Your task to perform on an android device: What's the weather going to be this weekend? Image 0: 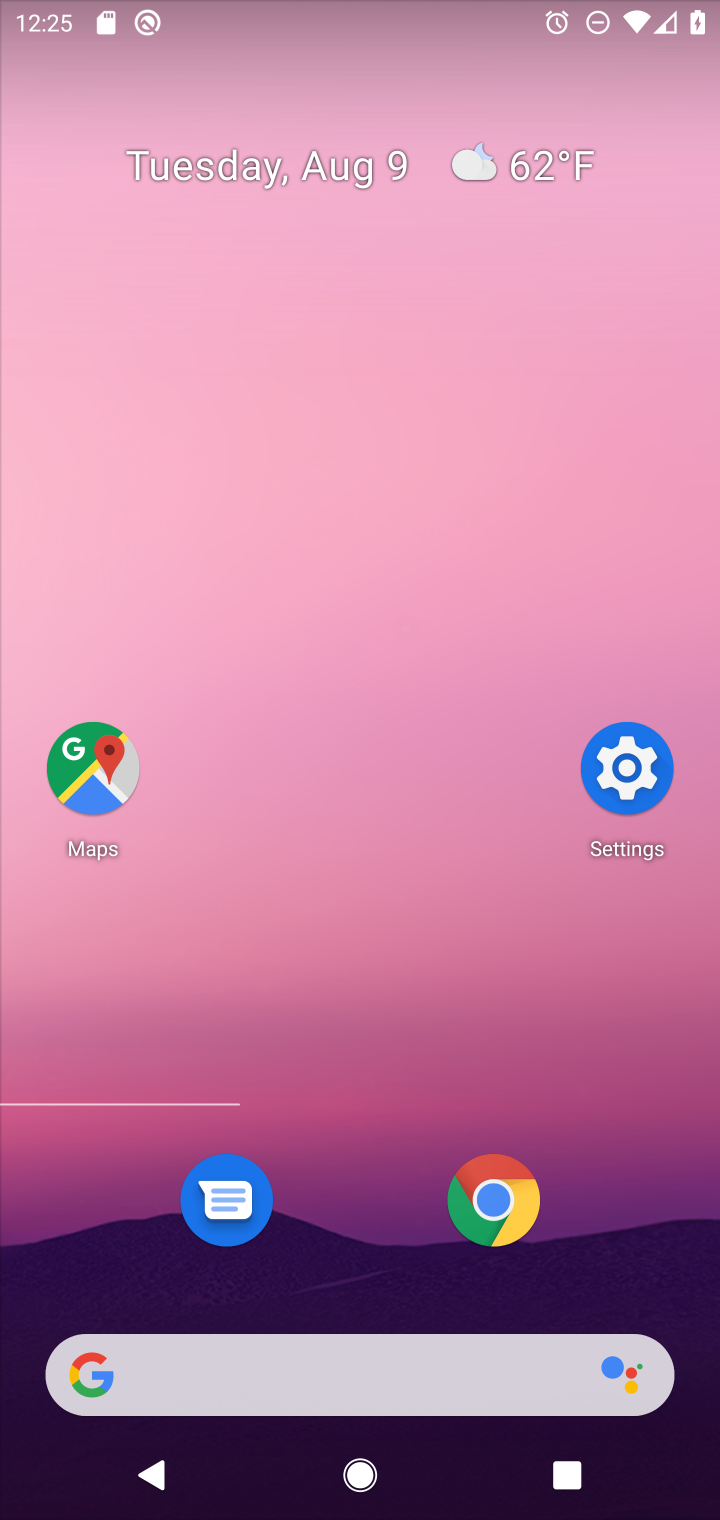
Step 0: click (297, 1367)
Your task to perform on an android device: What's the weather going to be this weekend? Image 1: 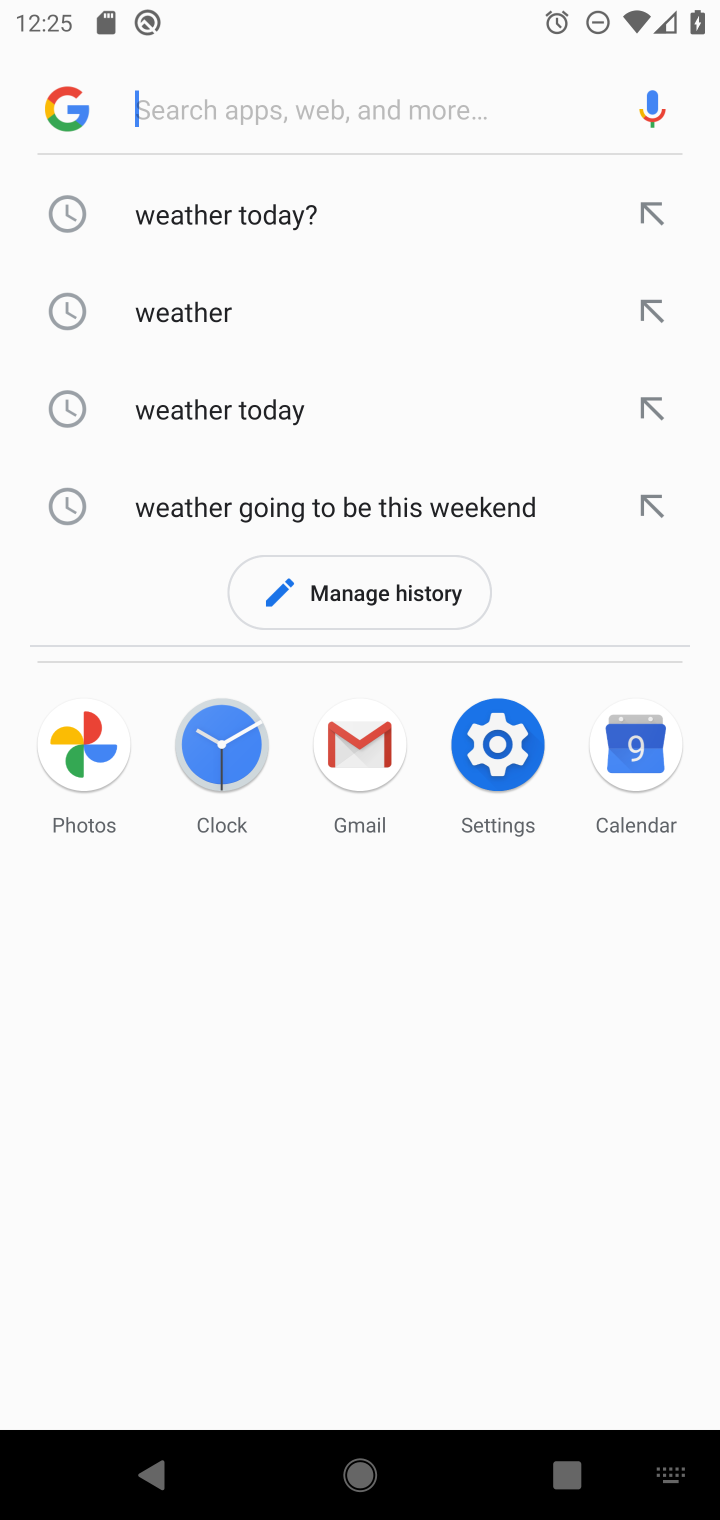
Step 1: click (638, 194)
Your task to perform on an android device: What's the weather going to be this weekend? Image 2: 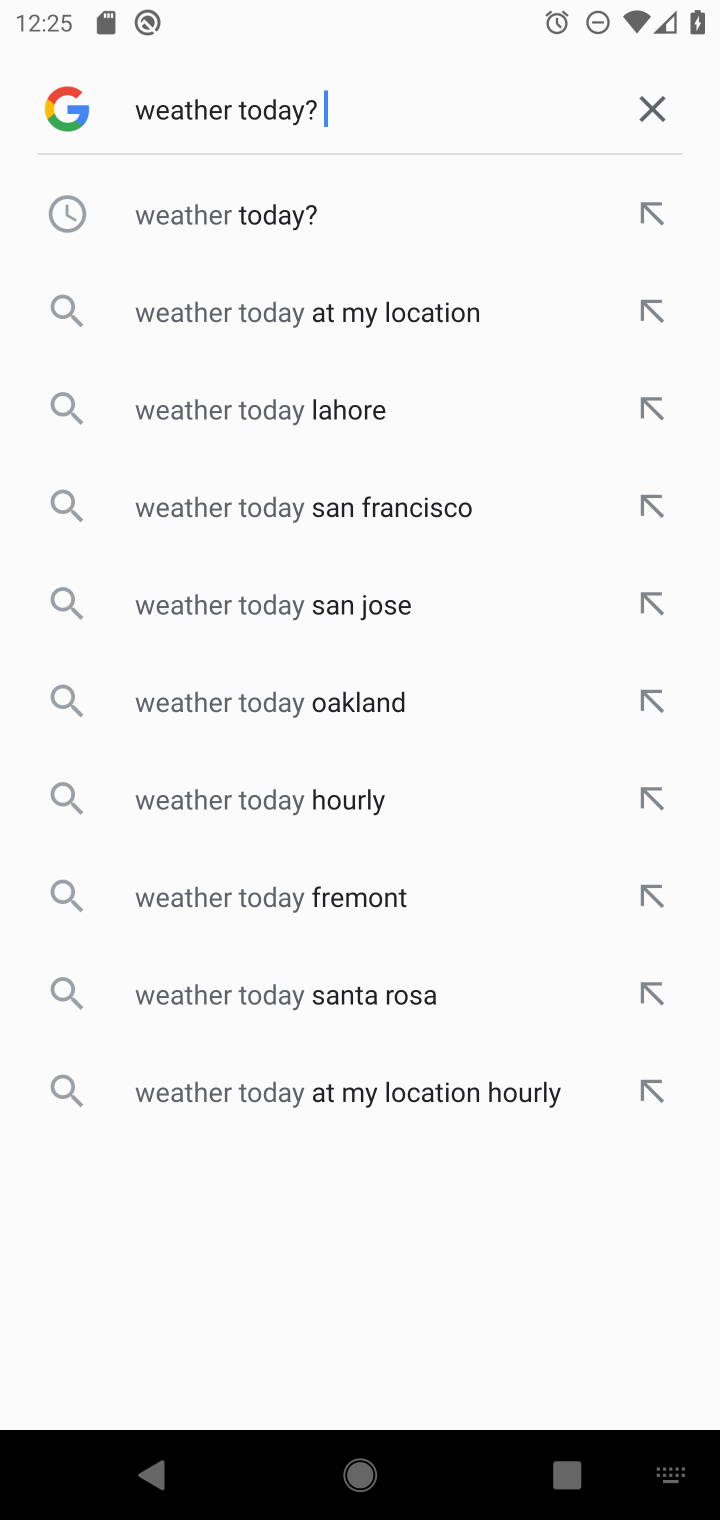
Step 2: click (644, 213)
Your task to perform on an android device: What's the weather going to be this weekend? Image 3: 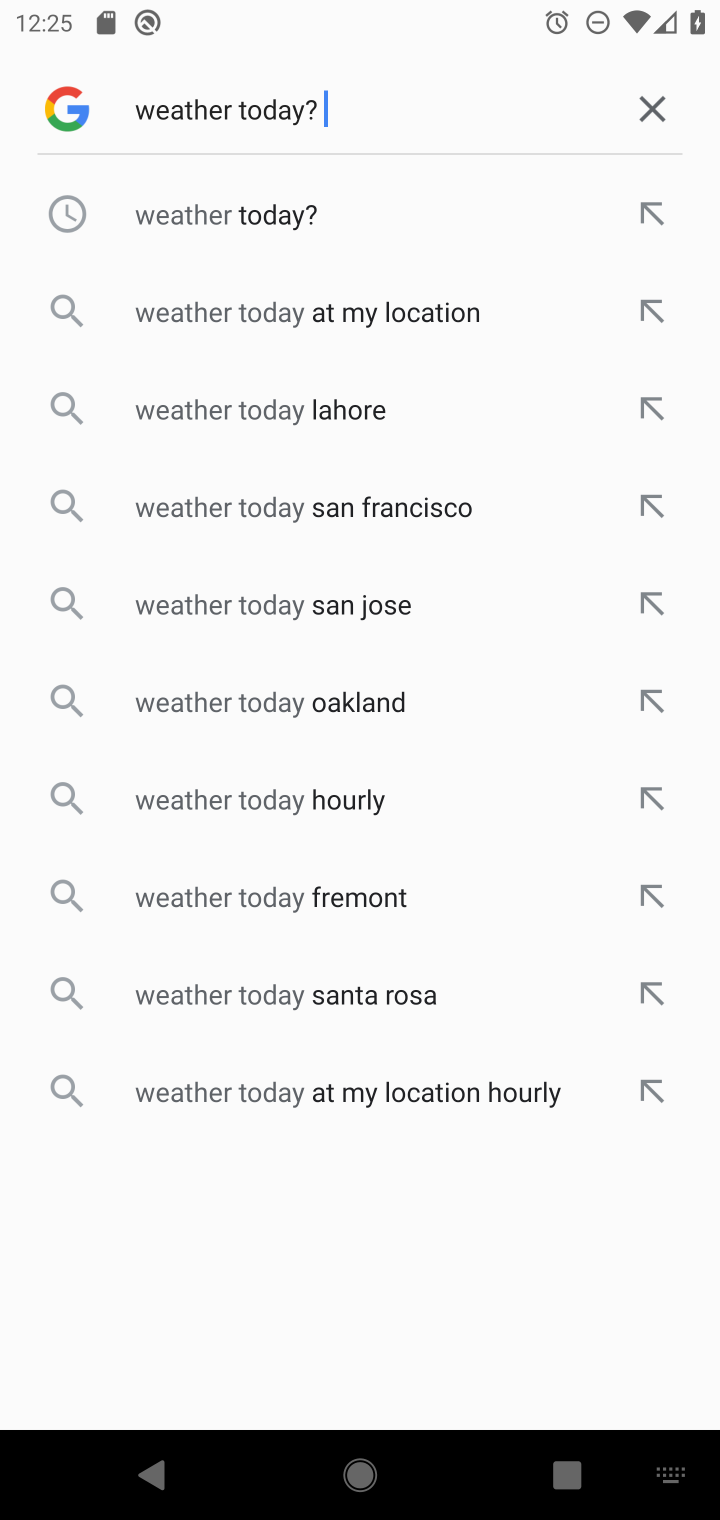
Step 3: click (649, 198)
Your task to perform on an android device: What's the weather going to be this weekend? Image 4: 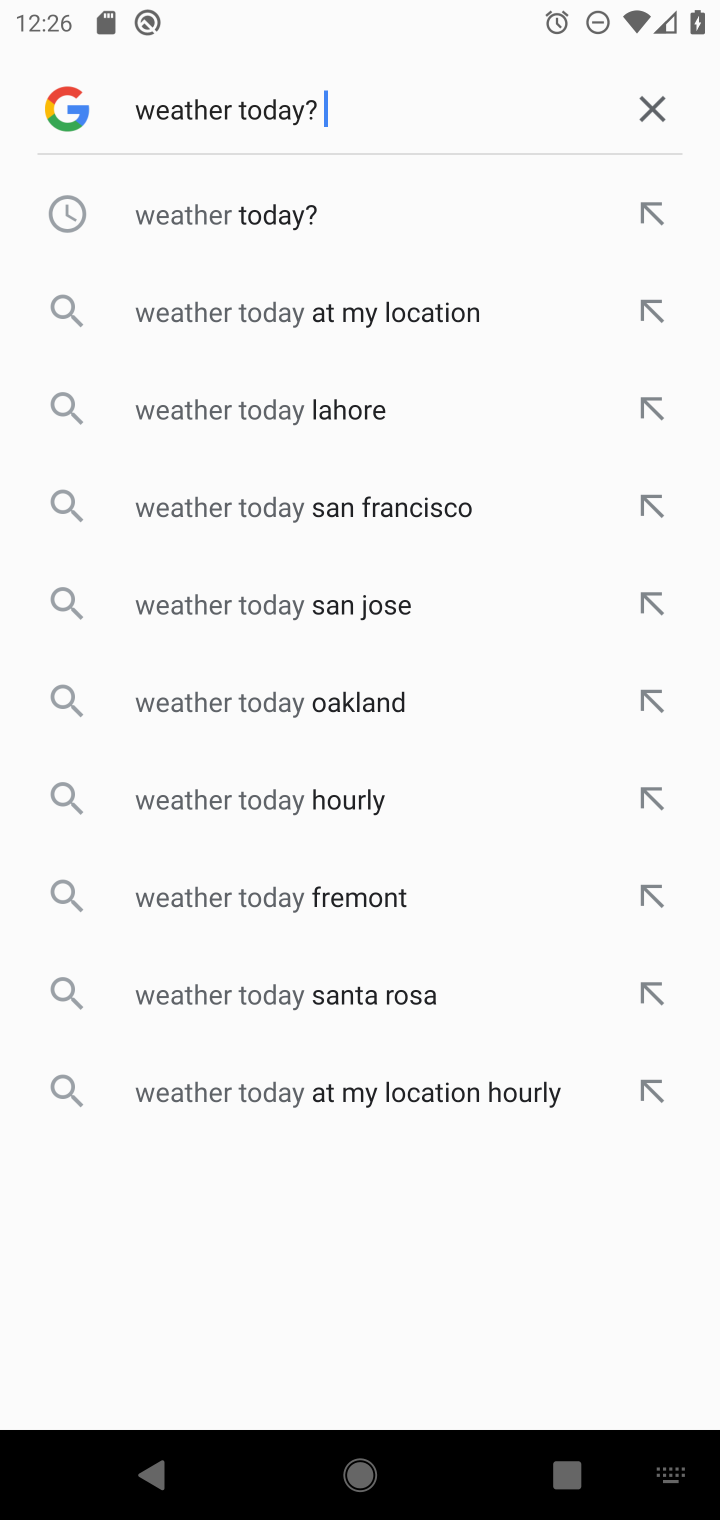
Step 4: click (269, 199)
Your task to perform on an android device: What's the weather going to be this weekend? Image 5: 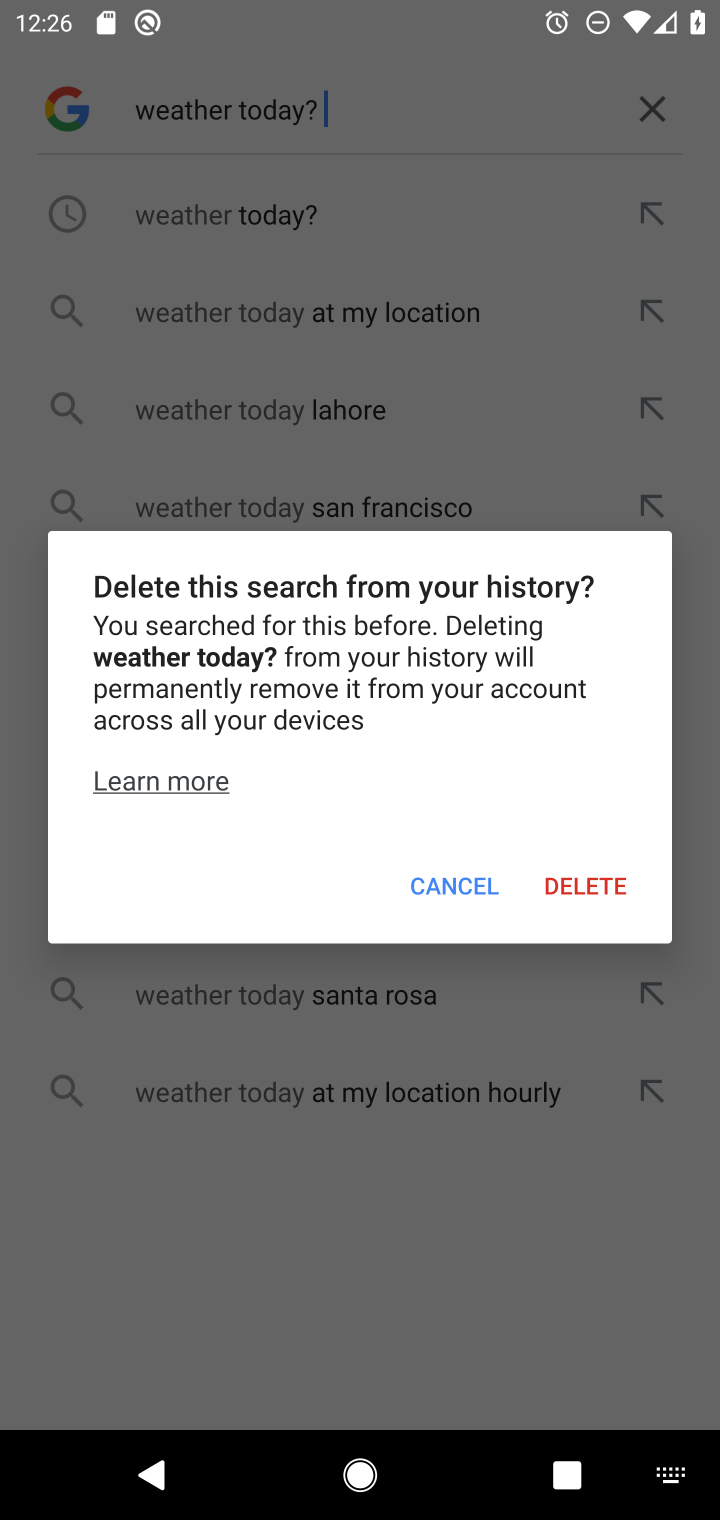
Step 5: click (466, 879)
Your task to perform on an android device: What's the weather going to be this weekend? Image 6: 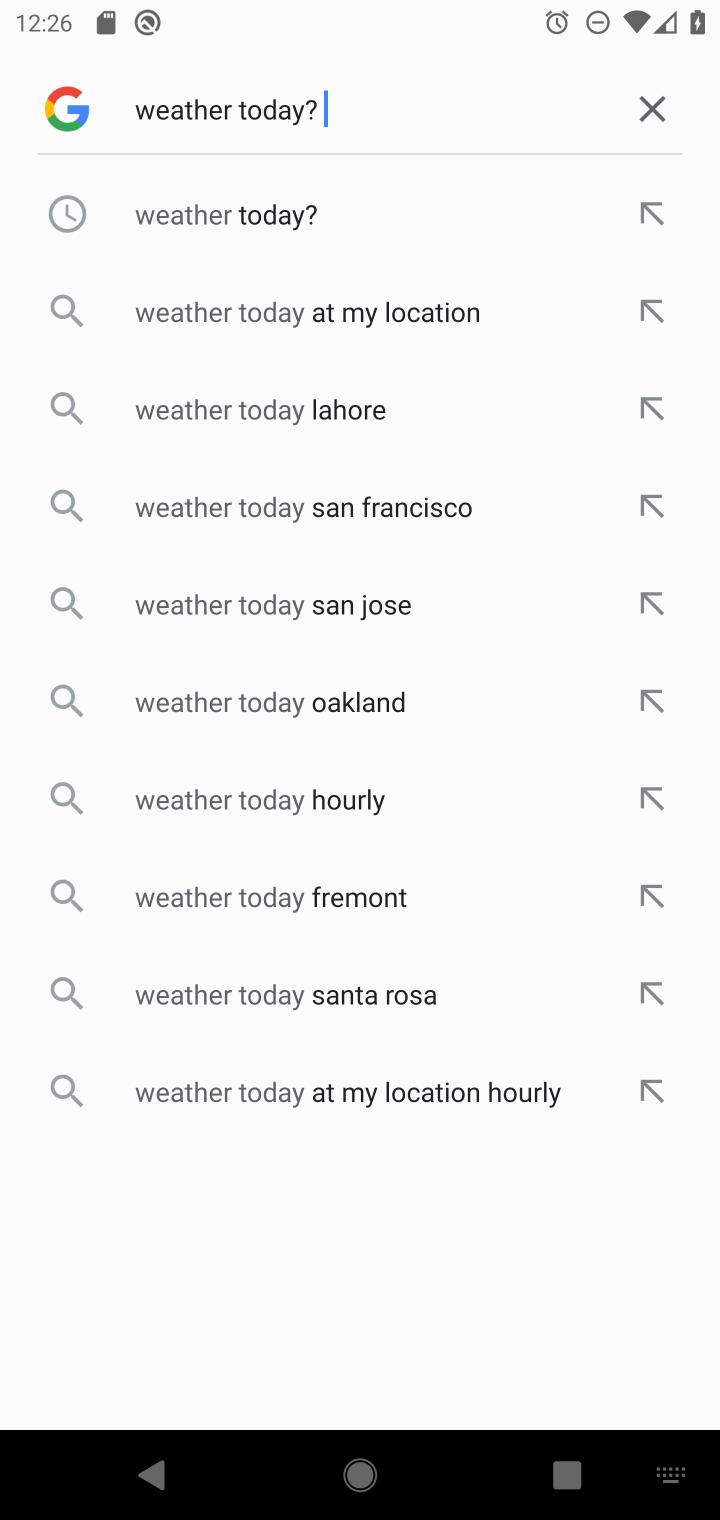
Step 6: click (217, 198)
Your task to perform on an android device: What's the weather going to be this weekend? Image 7: 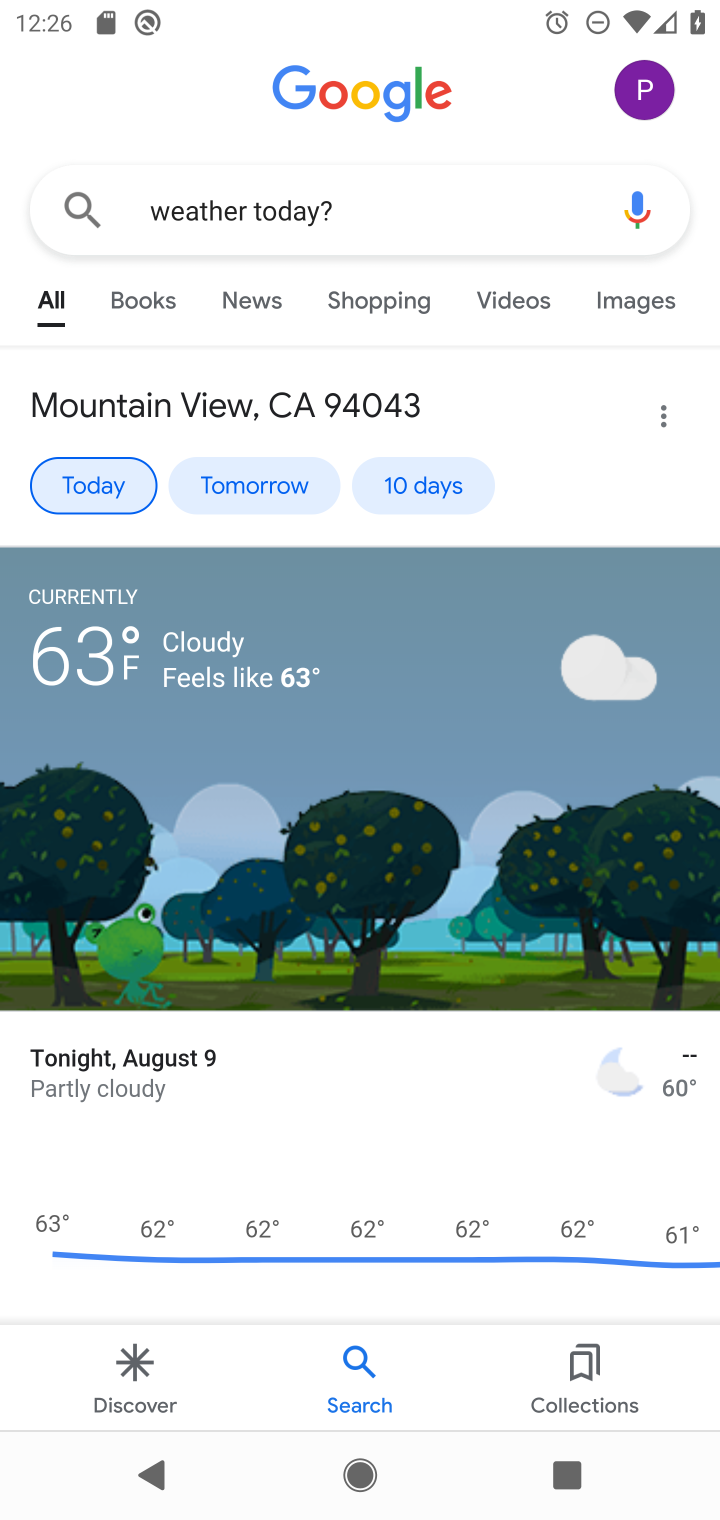
Step 7: click (401, 462)
Your task to perform on an android device: What's the weather going to be this weekend? Image 8: 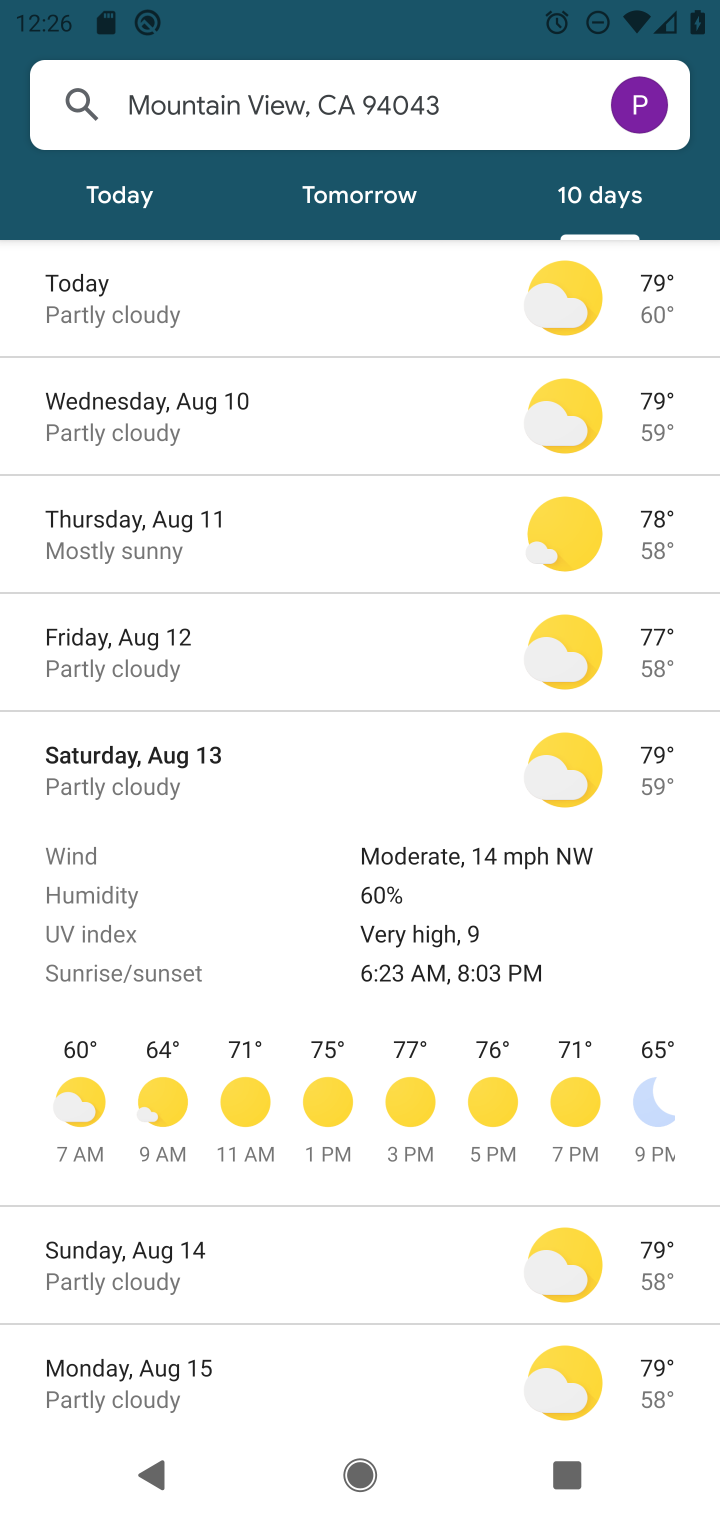
Step 8: task complete